Your task to perform on an android device: Open wifi settings Image 0: 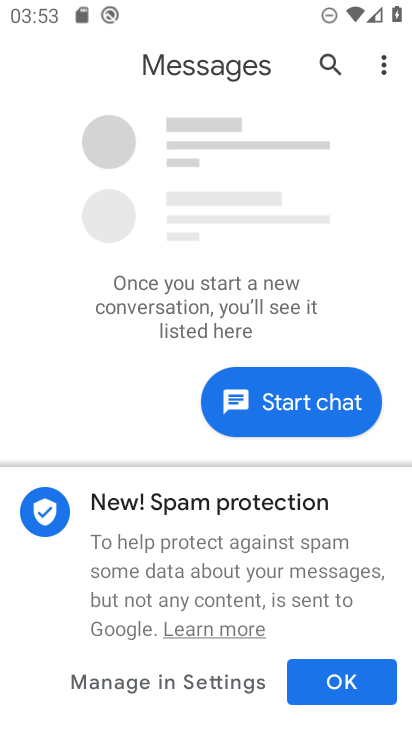
Step 0: press home button
Your task to perform on an android device: Open wifi settings Image 1: 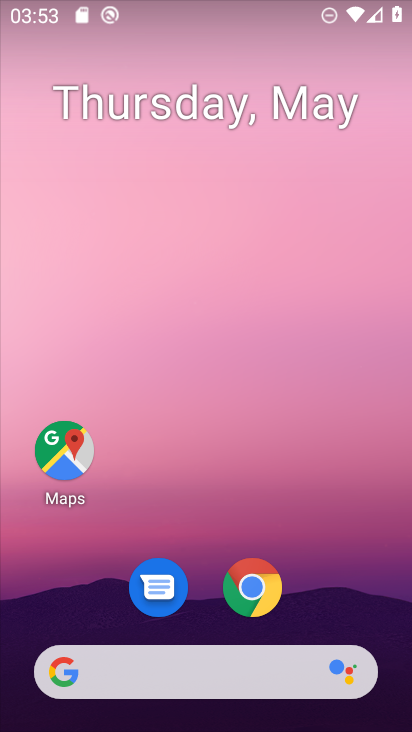
Step 1: drag from (364, 573) to (353, 225)
Your task to perform on an android device: Open wifi settings Image 2: 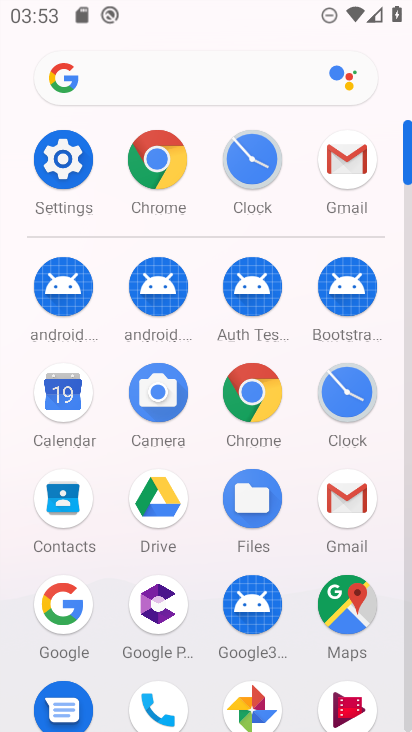
Step 2: click (76, 184)
Your task to perform on an android device: Open wifi settings Image 3: 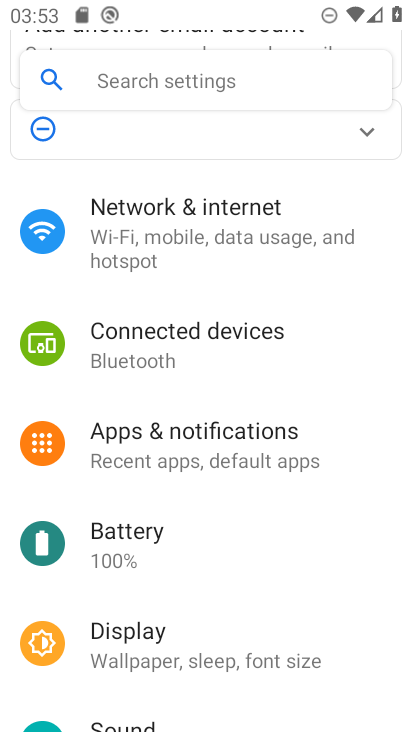
Step 3: click (296, 253)
Your task to perform on an android device: Open wifi settings Image 4: 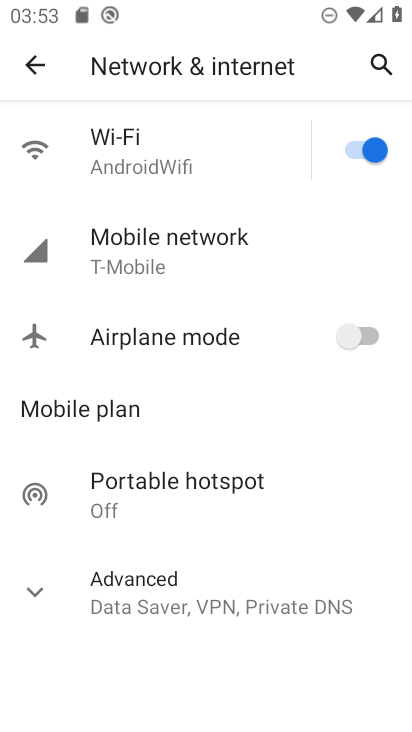
Step 4: click (187, 174)
Your task to perform on an android device: Open wifi settings Image 5: 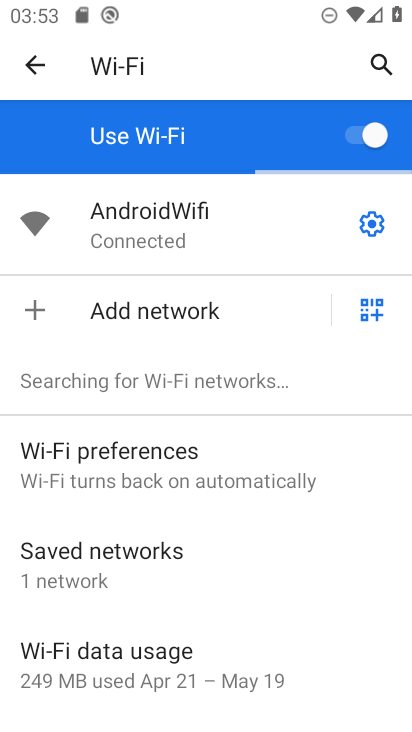
Step 5: task complete